Your task to perform on an android device: Go to eBay Image 0: 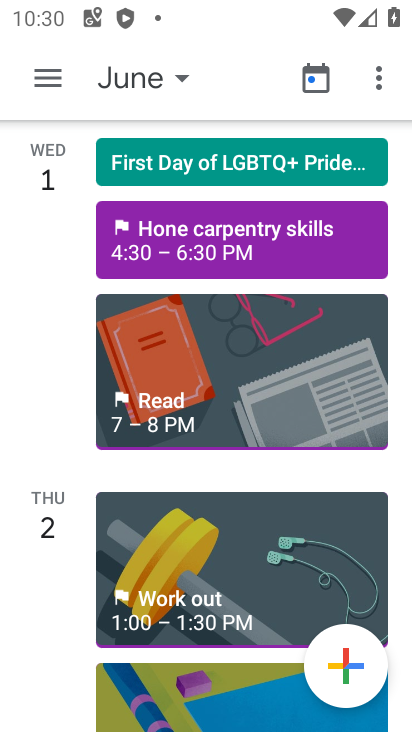
Step 0: press back button
Your task to perform on an android device: Go to eBay Image 1: 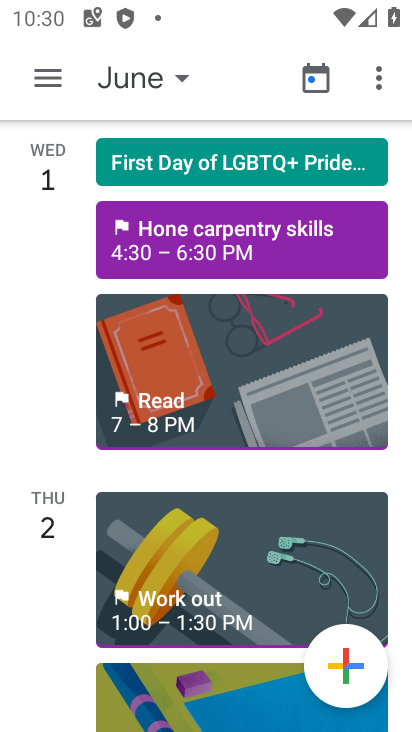
Step 1: press back button
Your task to perform on an android device: Go to eBay Image 2: 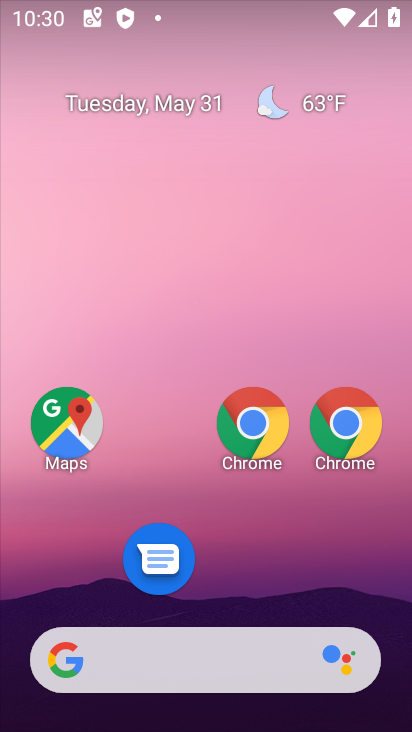
Step 2: drag from (263, 713) to (209, 176)
Your task to perform on an android device: Go to eBay Image 3: 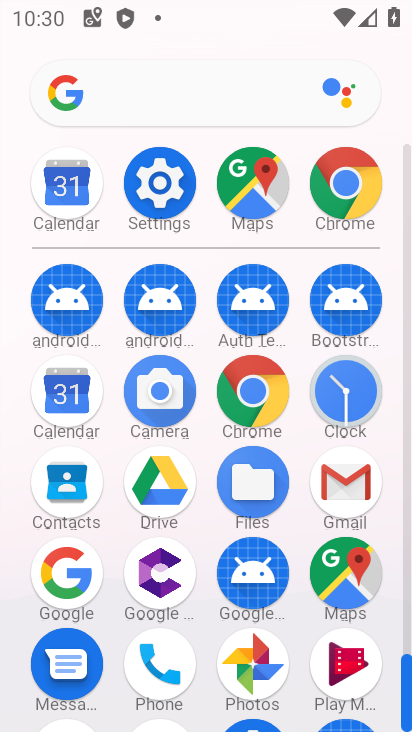
Step 3: click (358, 180)
Your task to perform on an android device: Go to eBay Image 4: 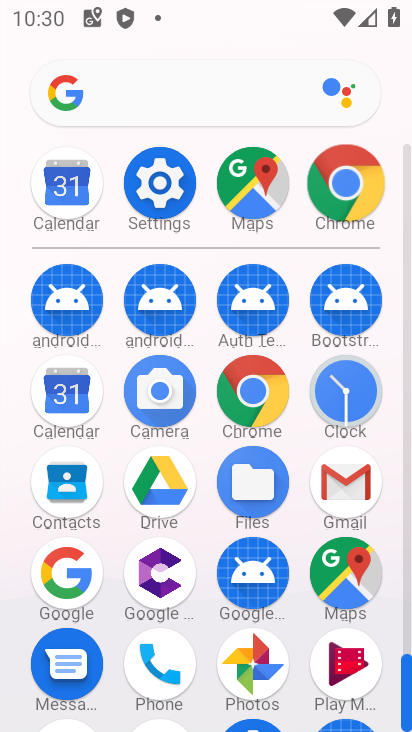
Step 4: click (358, 180)
Your task to perform on an android device: Go to eBay Image 5: 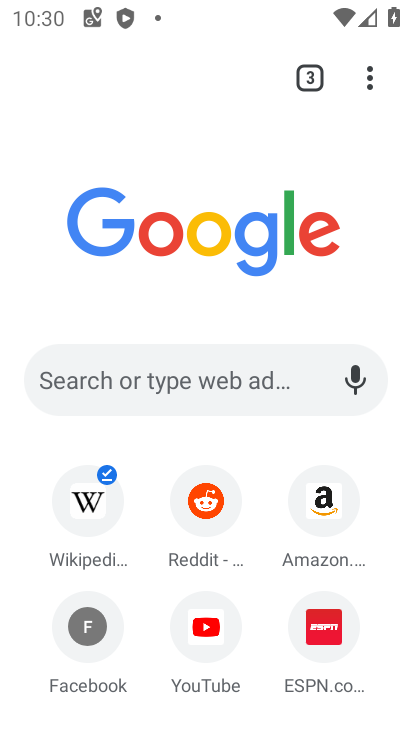
Step 5: drag from (369, 87) to (84, 148)
Your task to perform on an android device: Go to eBay Image 6: 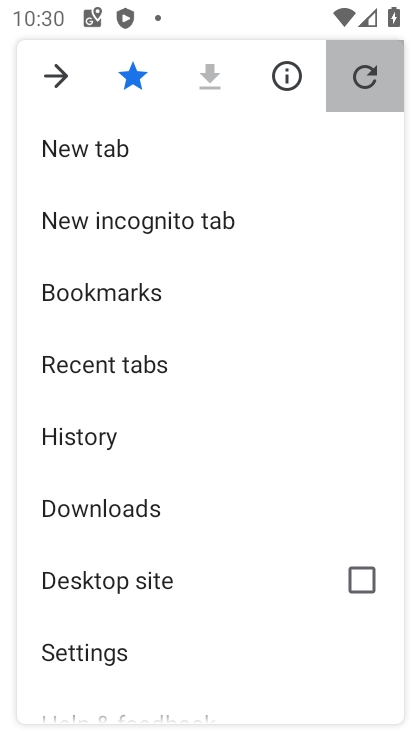
Step 6: click (88, 142)
Your task to perform on an android device: Go to eBay Image 7: 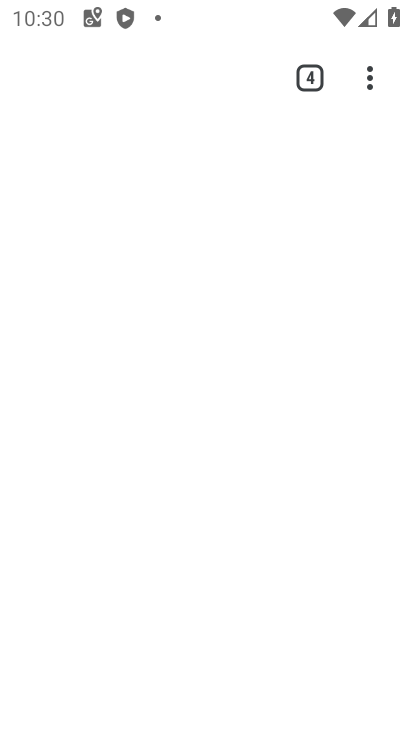
Step 7: click (92, 142)
Your task to perform on an android device: Go to eBay Image 8: 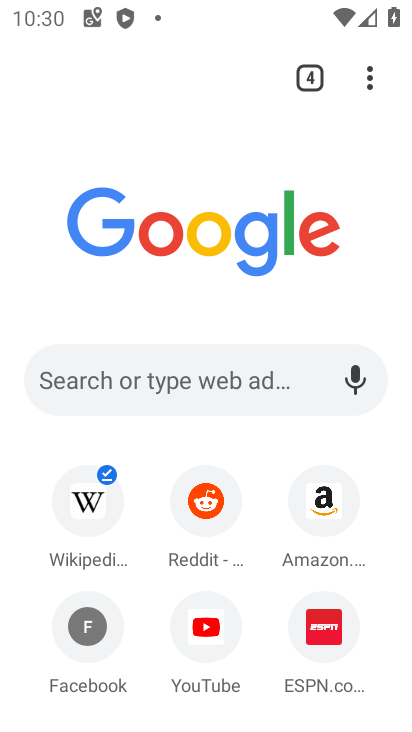
Step 8: click (92, 142)
Your task to perform on an android device: Go to eBay Image 9: 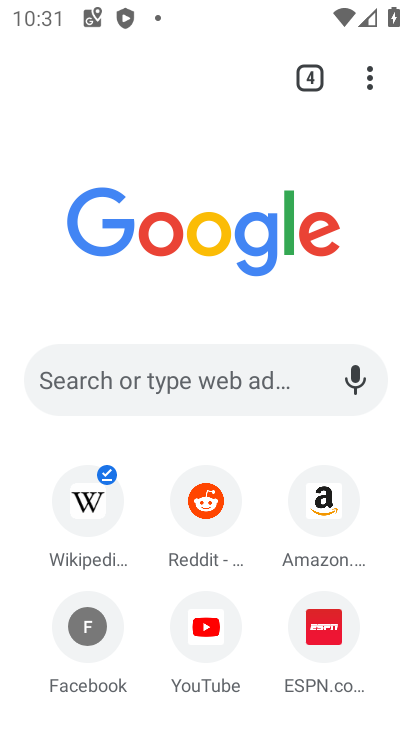
Step 9: drag from (359, 86) to (96, 155)
Your task to perform on an android device: Go to eBay Image 10: 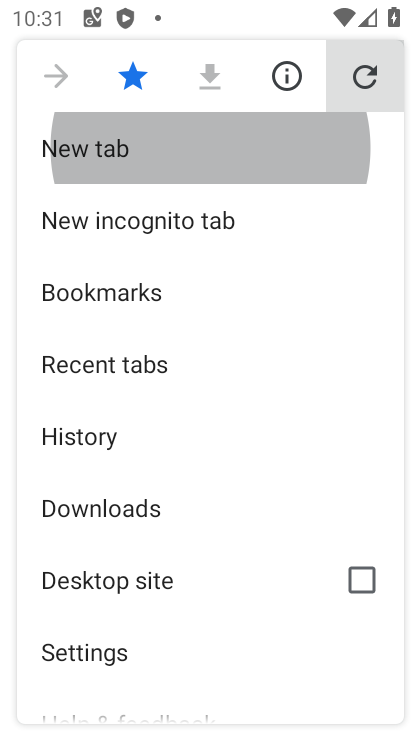
Step 10: click (94, 153)
Your task to perform on an android device: Go to eBay Image 11: 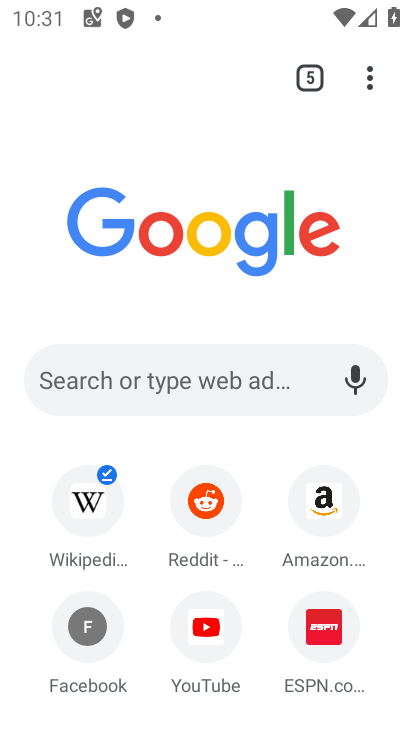
Step 11: click (74, 367)
Your task to perform on an android device: Go to eBay Image 12: 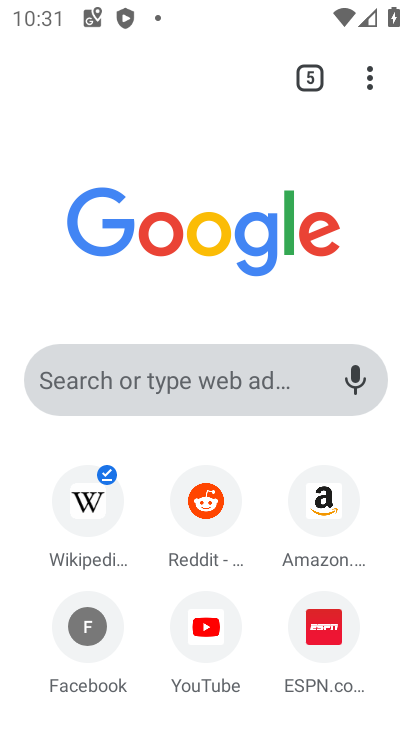
Step 12: click (73, 366)
Your task to perform on an android device: Go to eBay Image 13: 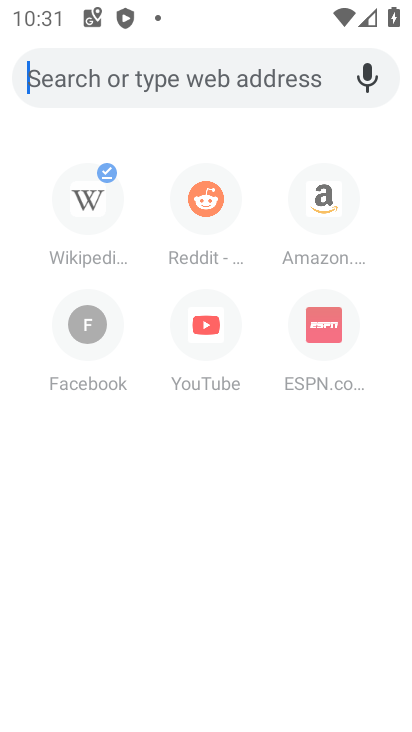
Step 13: click (73, 366)
Your task to perform on an android device: Go to eBay Image 14: 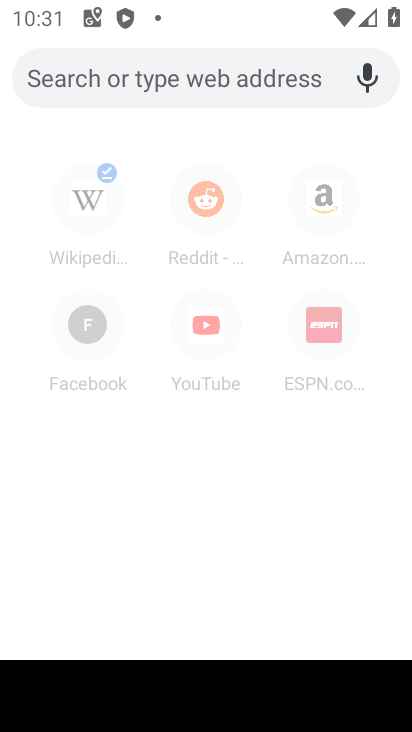
Step 14: click (73, 366)
Your task to perform on an android device: Go to eBay Image 15: 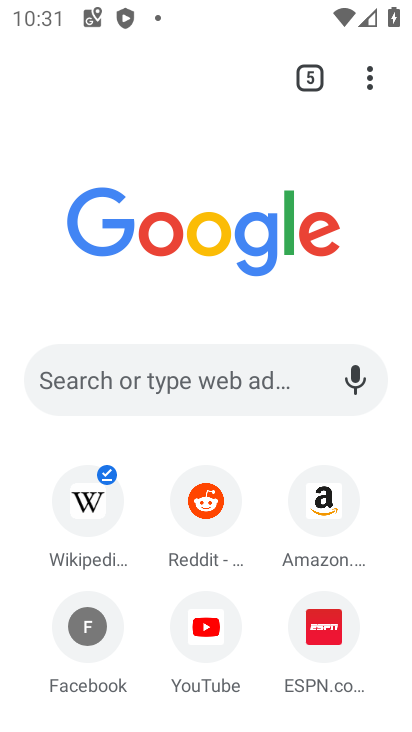
Step 15: click (100, 378)
Your task to perform on an android device: Go to eBay Image 16: 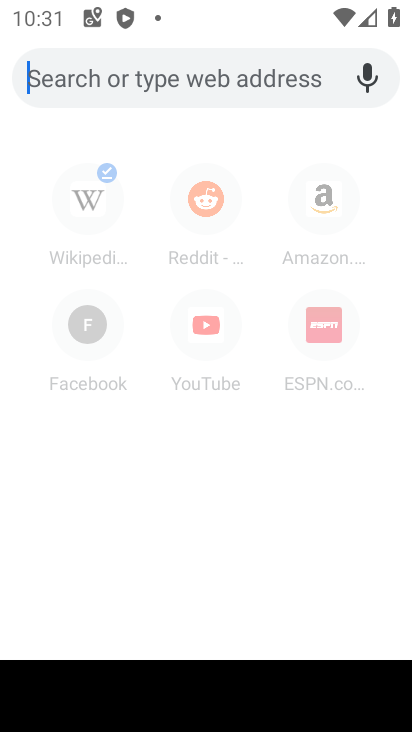
Step 16: type "ebay.com"
Your task to perform on an android device: Go to eBay Image 17: 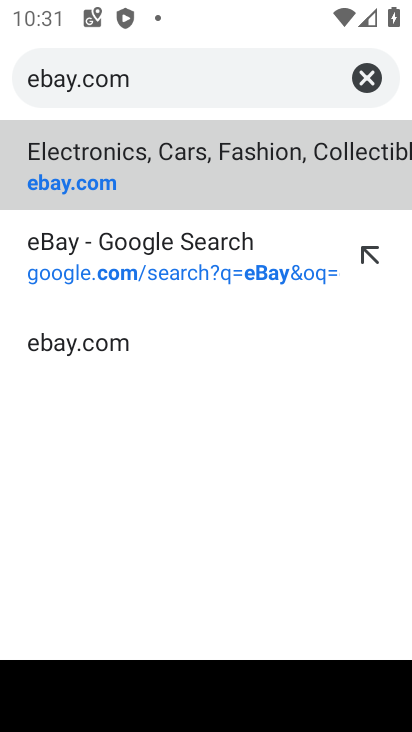
Step 17: click (88, 186)
Your task to perform on an android device: Go to eBay Image 18: 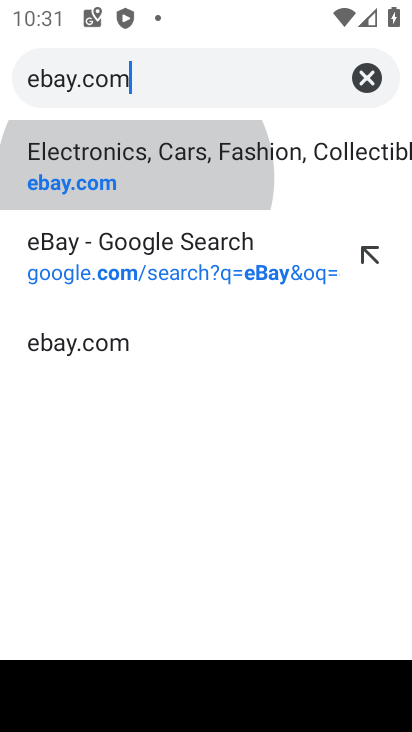
Step 18: click (88, 186)
Your task to perform on an android device: Go to eBay Image 19: 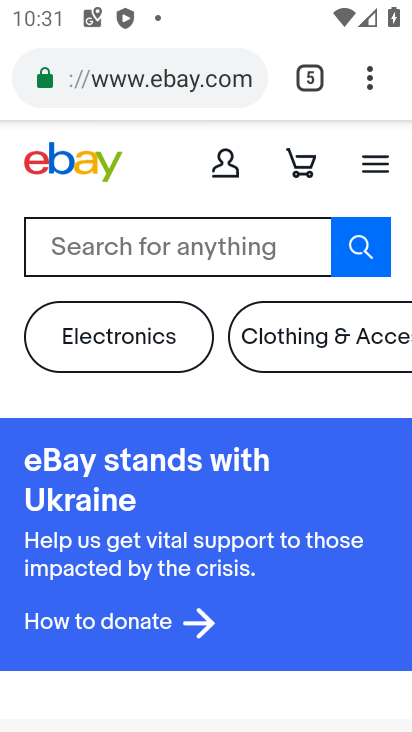
Step 19: task complete